Your task to perform on an android device: open a new tab in the chrome app Image 0: 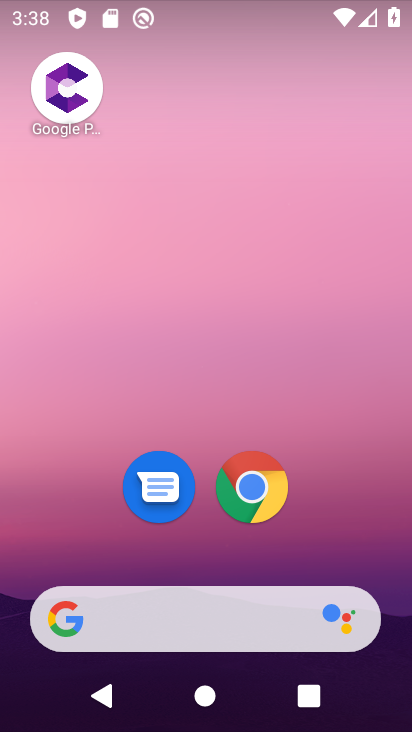
Step 0: click (265, 477)
Your task to perform on an android device: open a new tab in the chrome app Image 1: 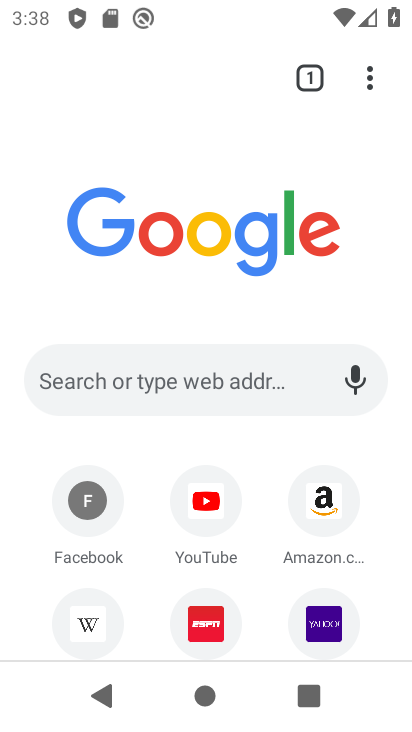
Step 1: click (303, 91)
Your task to perform on an android device: open a new tab in the chrome app Image 2: 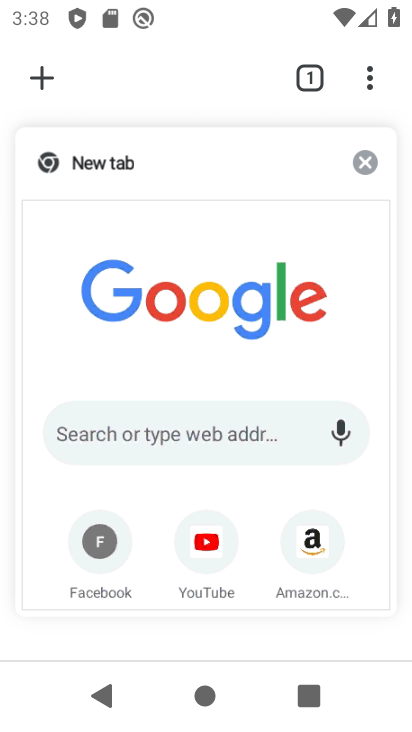
Step 2: click (41, 59)
Your task to perform on an android device: open a new tab in the chrome app Image 3: 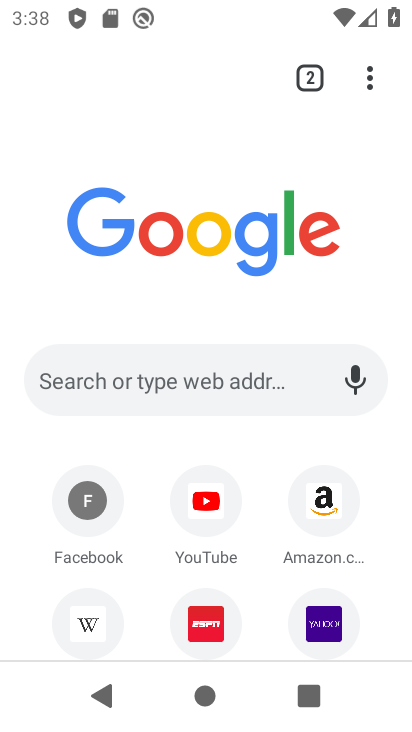
Step 3: task complete